Your task to perform on an android device: install app "Spotify: Music and Podcasts" Image 0: 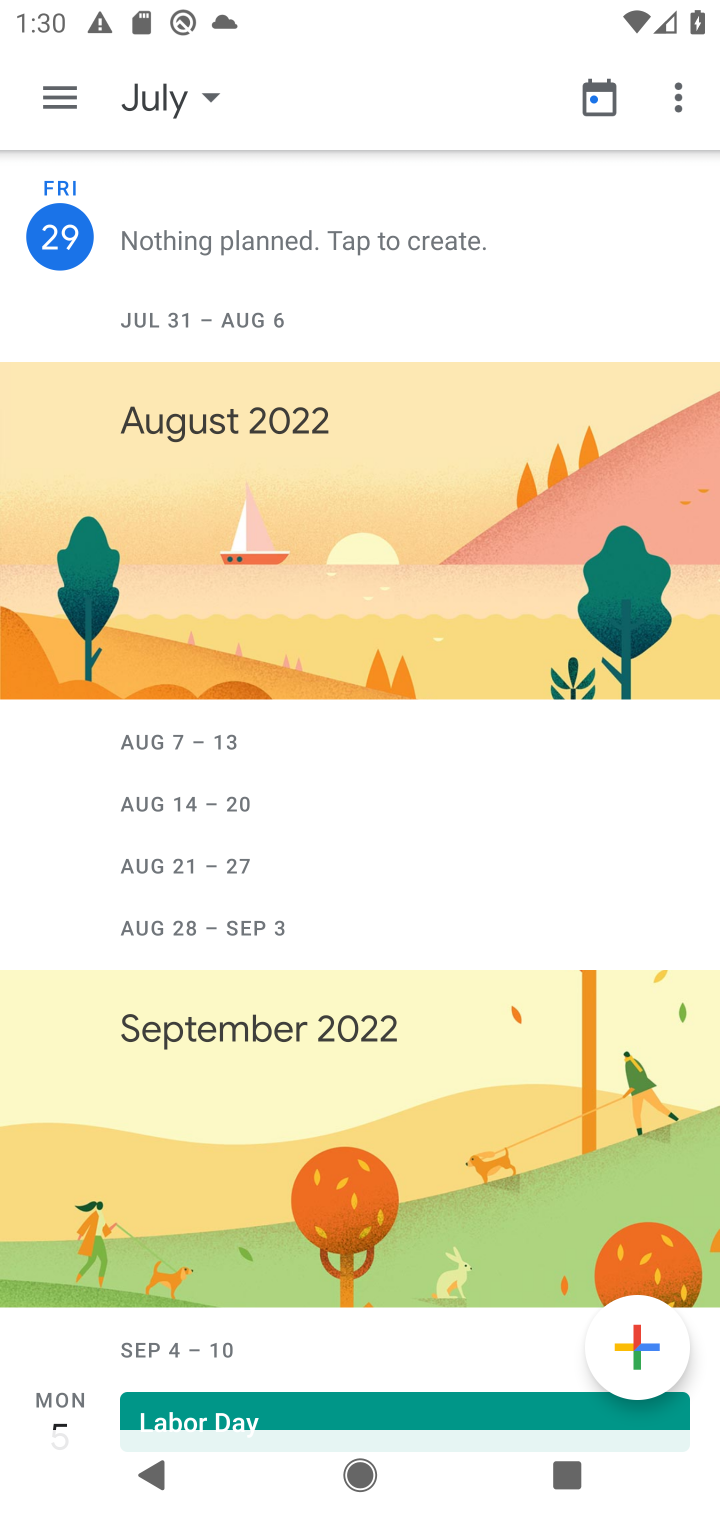
Step 0: press home button
Your task to perform on an android device: install app "Spotify: Music and Podcasts" Image 1: 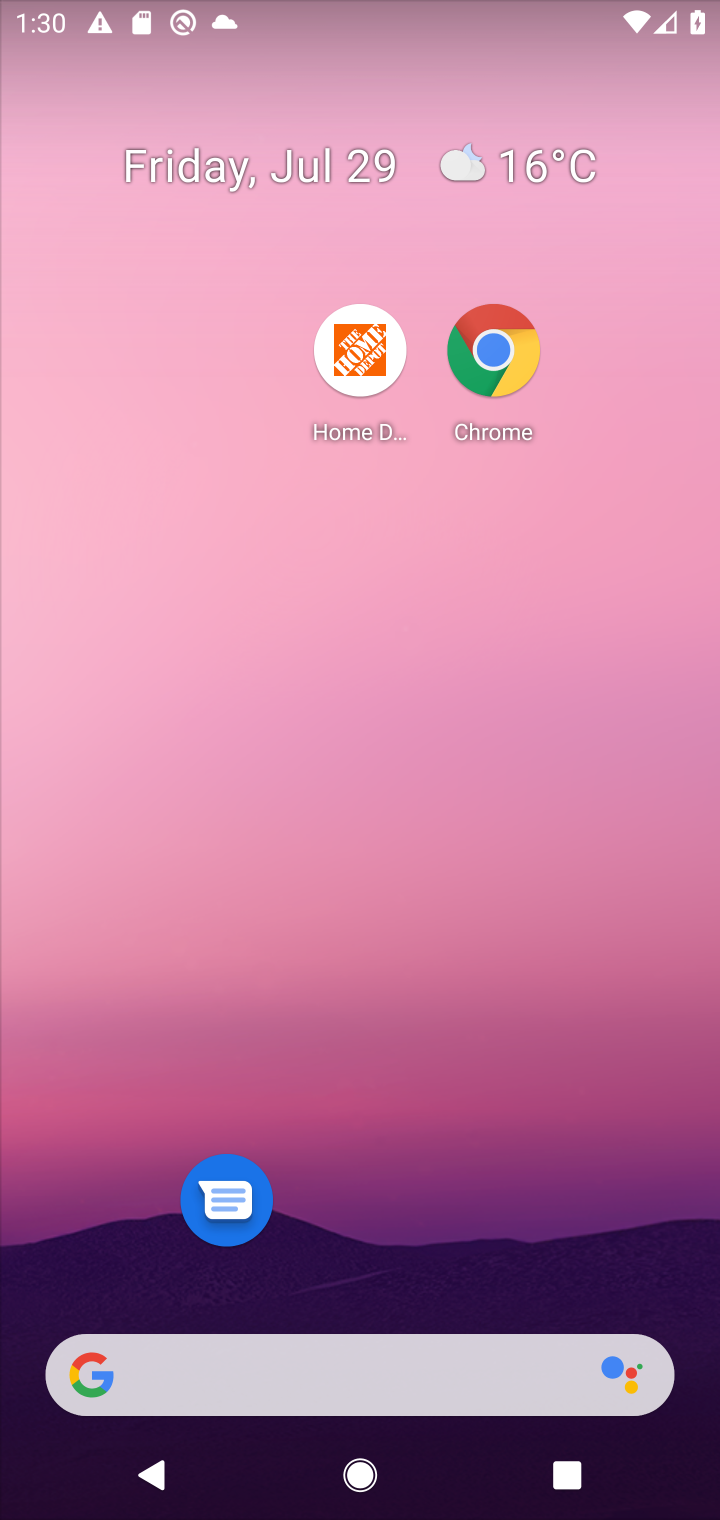
Step 1: drag from (466, 1127) to (554, 109)
Your task to perform on an android device: install app "Spotify: Music and Podcasts" Image 2: 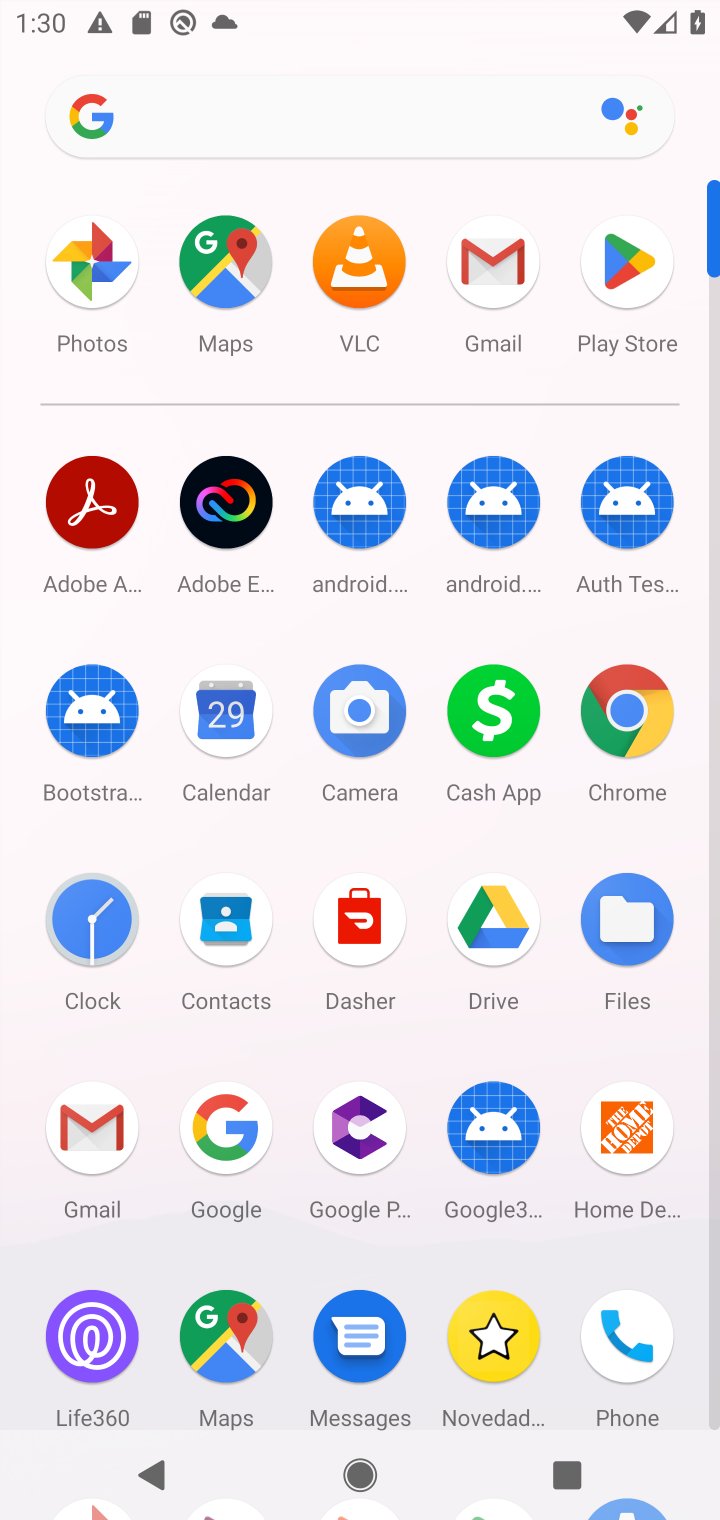
Step 2: click (631, 268)
Your task to perform on an android device: install app "Spotify: Music and Podcasts" Image 3: 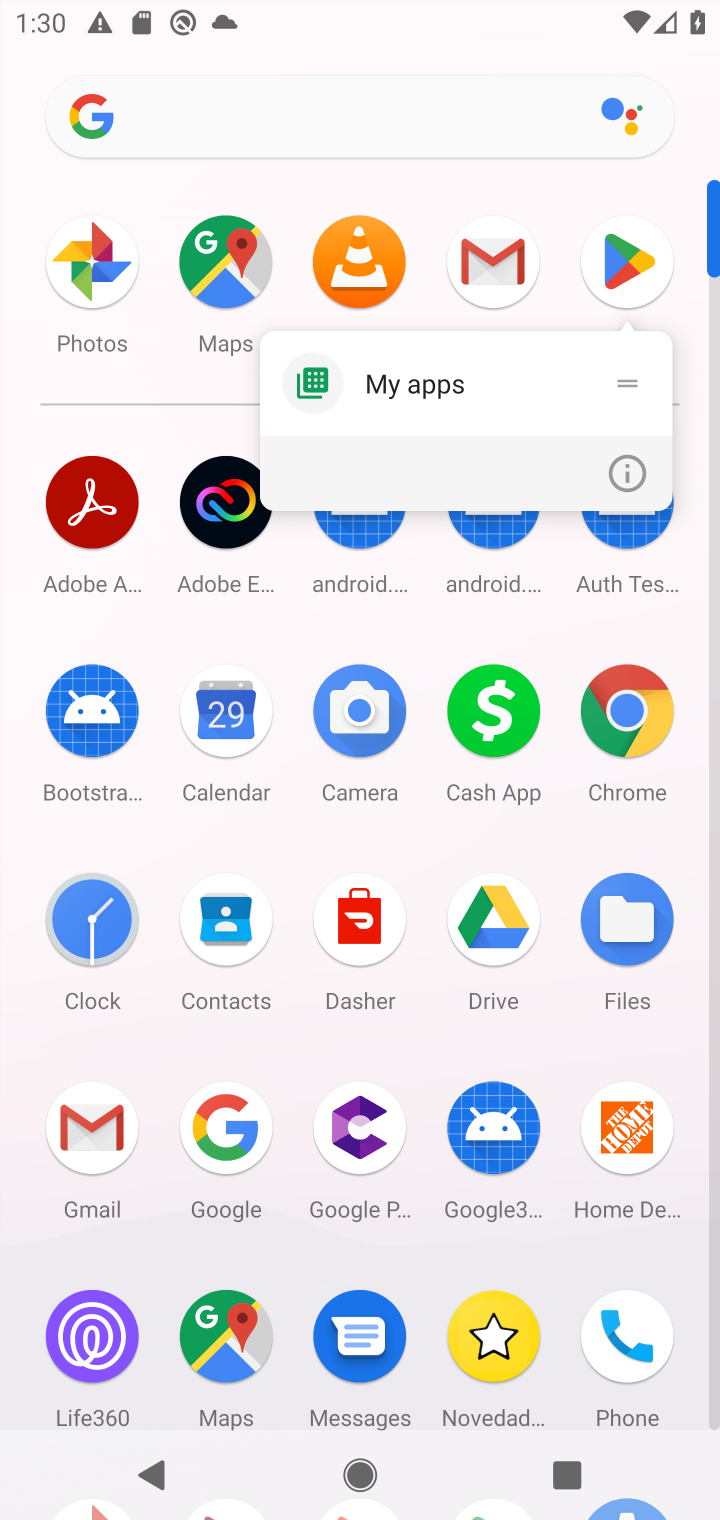
Step 3: click (631, 268)
Your task to perform on an android device: install app "Spotify: Music and Podcasts" Image 4: 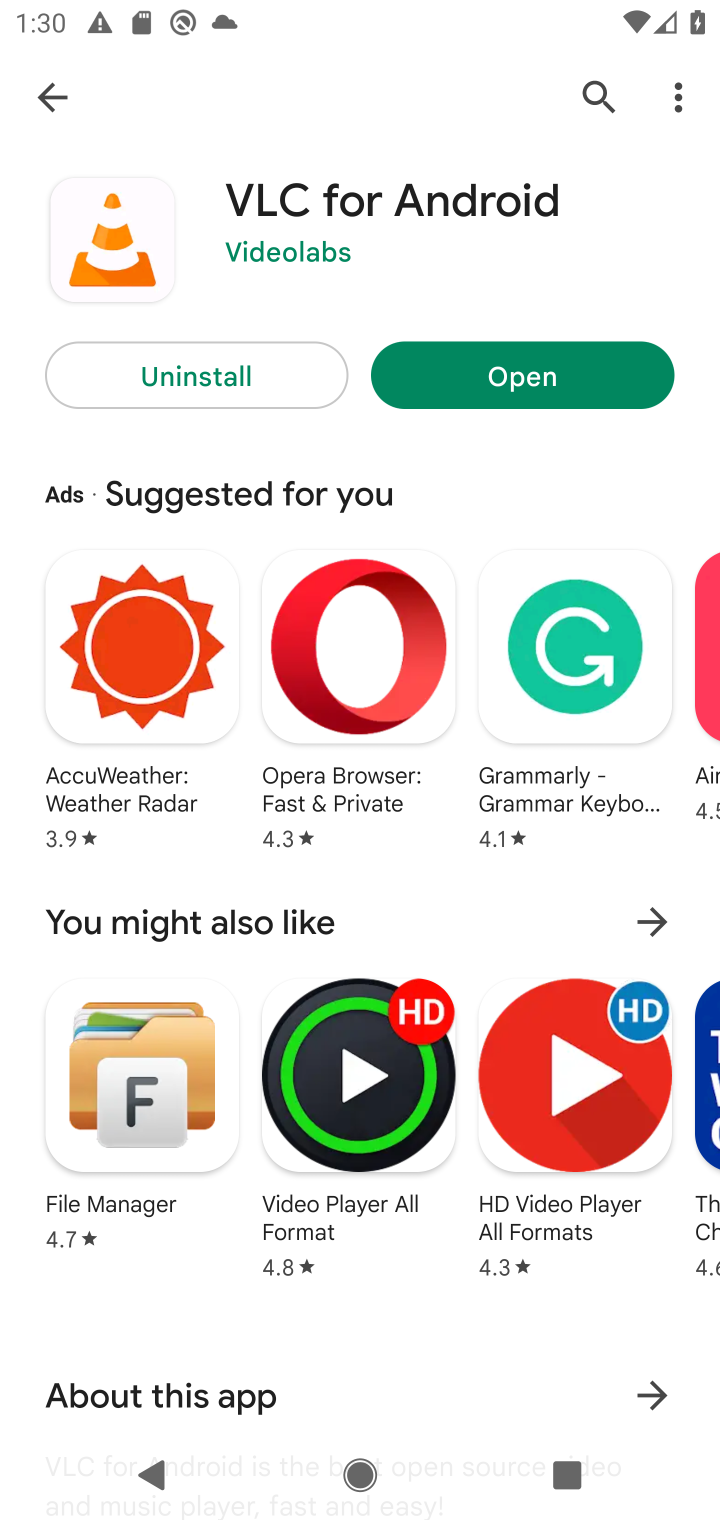
Step 4: click (587, 88)
Your task to perform on an android device: install app "Spotify: Music and Podcasts" Image 5: 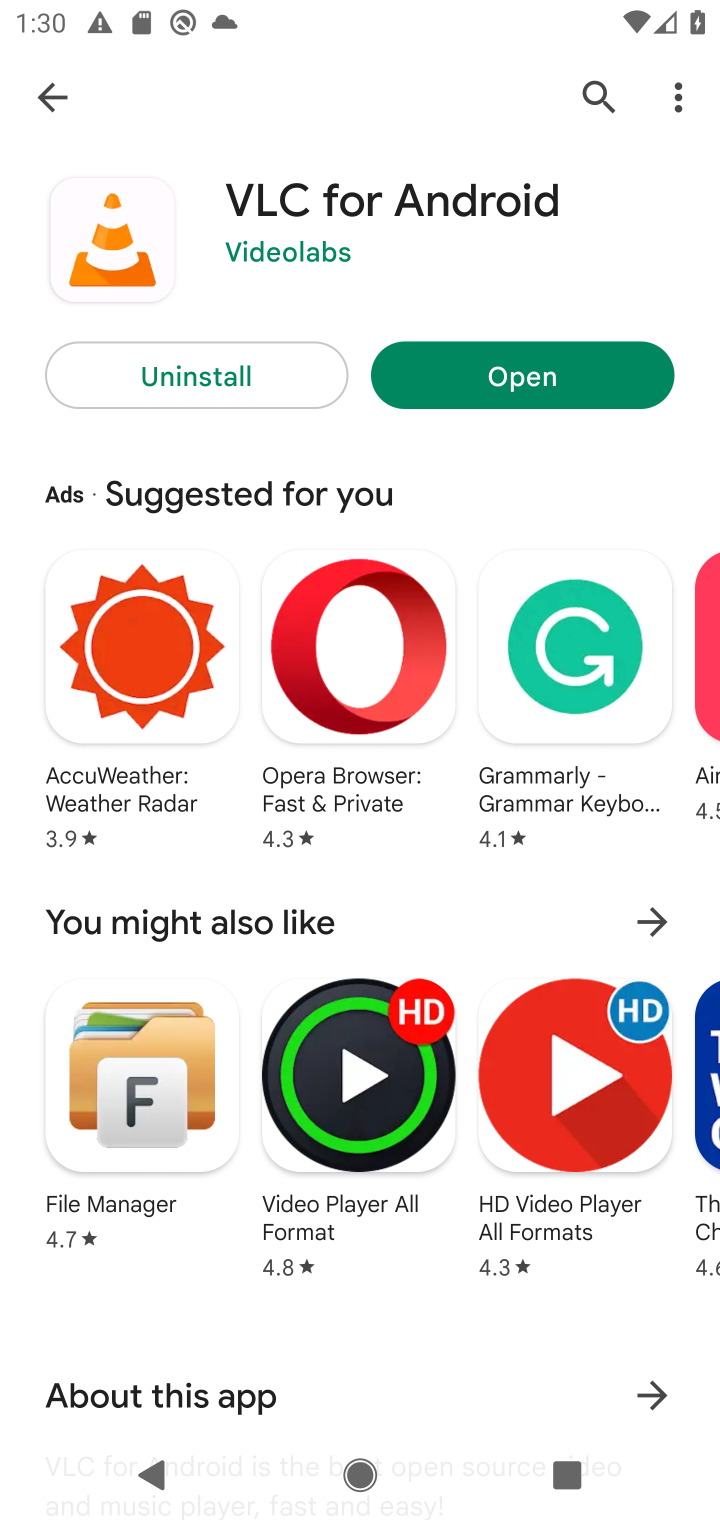
Step 5: press back button
Your task to perform on an android device: install app "Spotify: Music and Podcasts" Image 6: 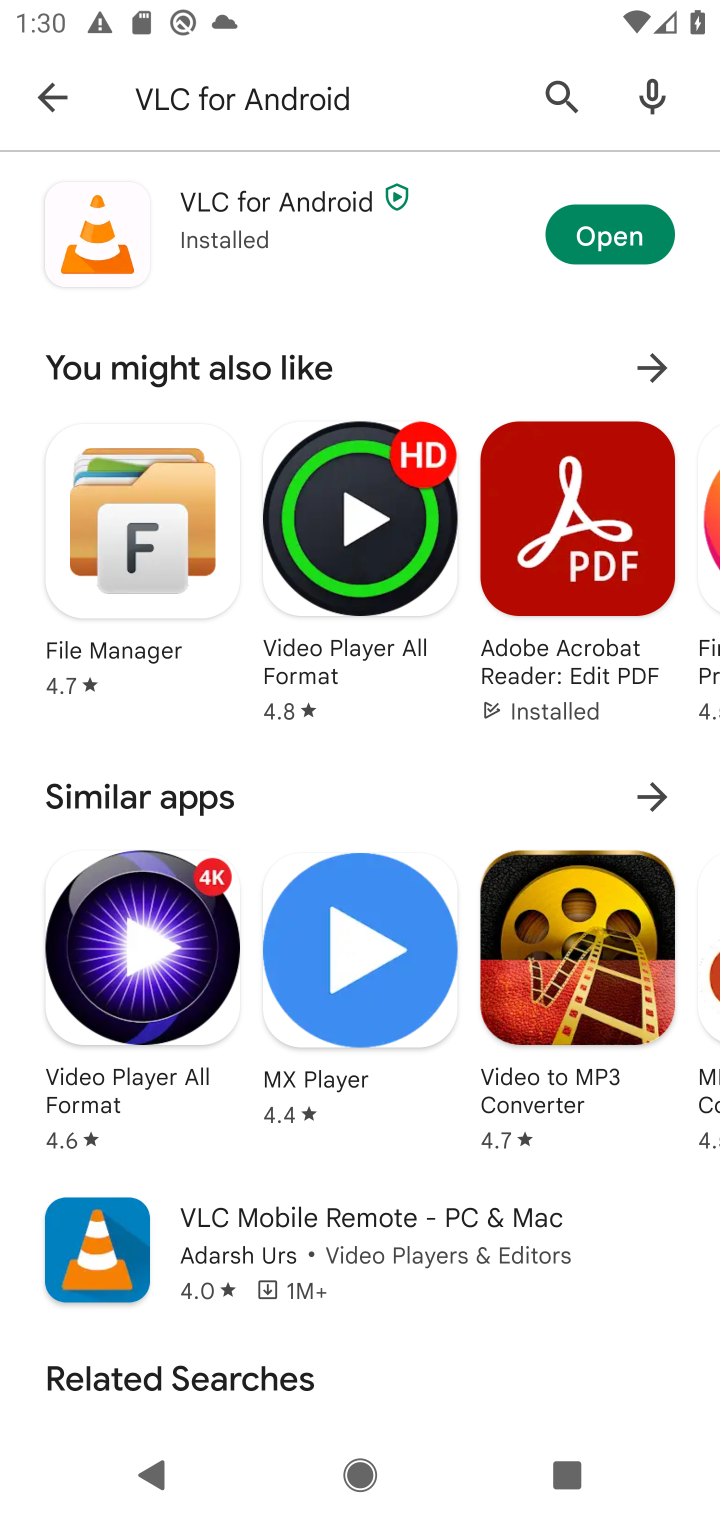
Step 6: click (406, 105)
Your task to perform on an android device: install app "Spotify: Music and Podcasts" Image 7: 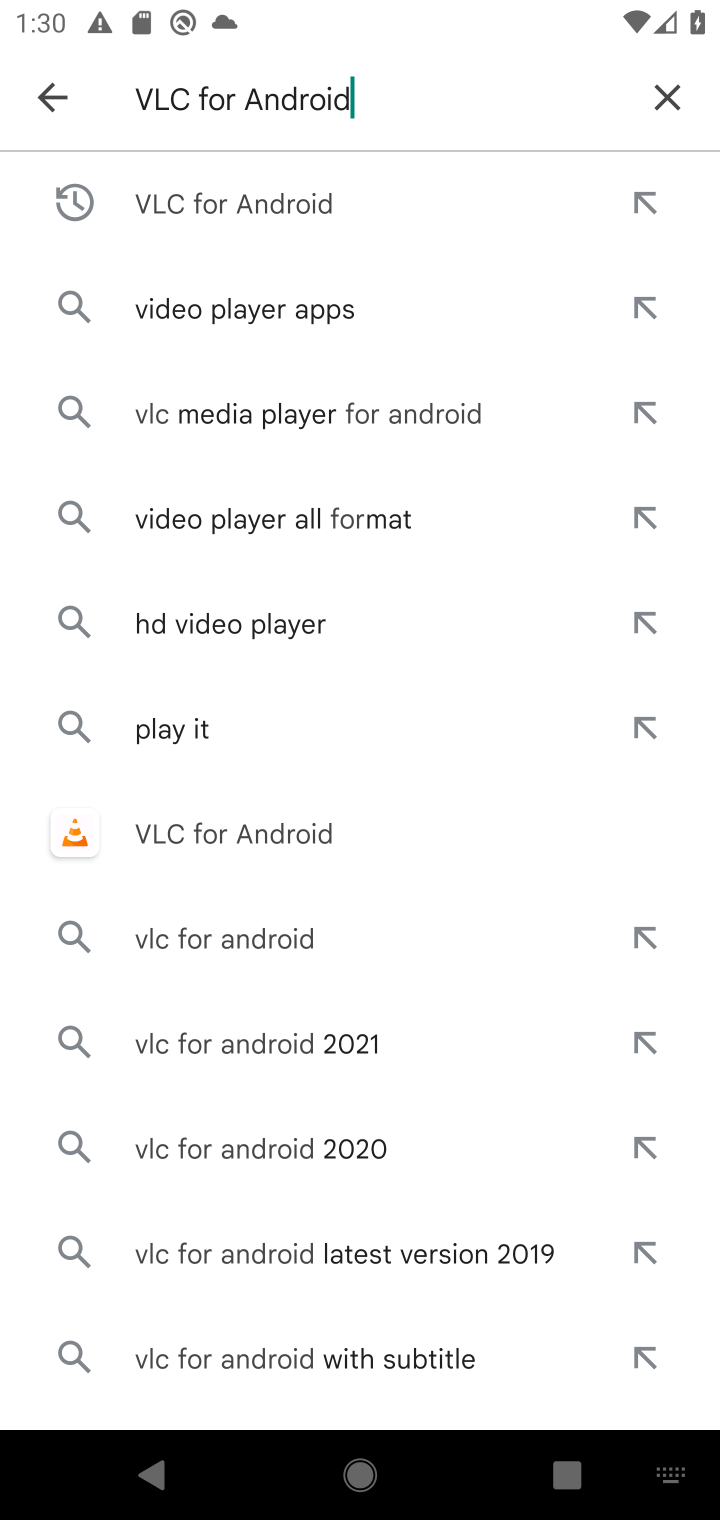
Step 7: click (660, 84)
Your task to perform on an android device: install app "Spotify: Music and Podcasts" Image 8: 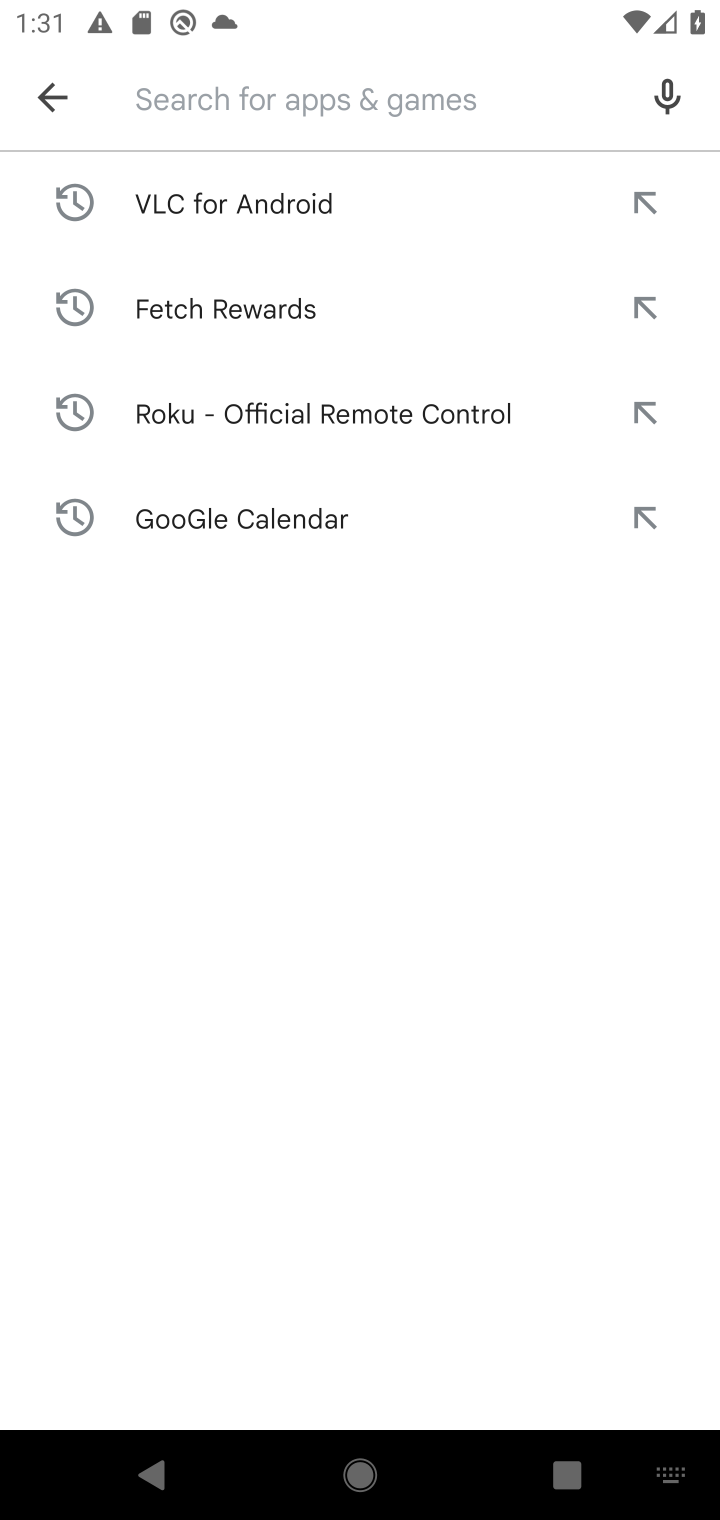
Step 8: type "Spotify: Music and Podcasts"
Your task to perform on an android device: install app "Spotify: Music and Podcasts" Image 9: 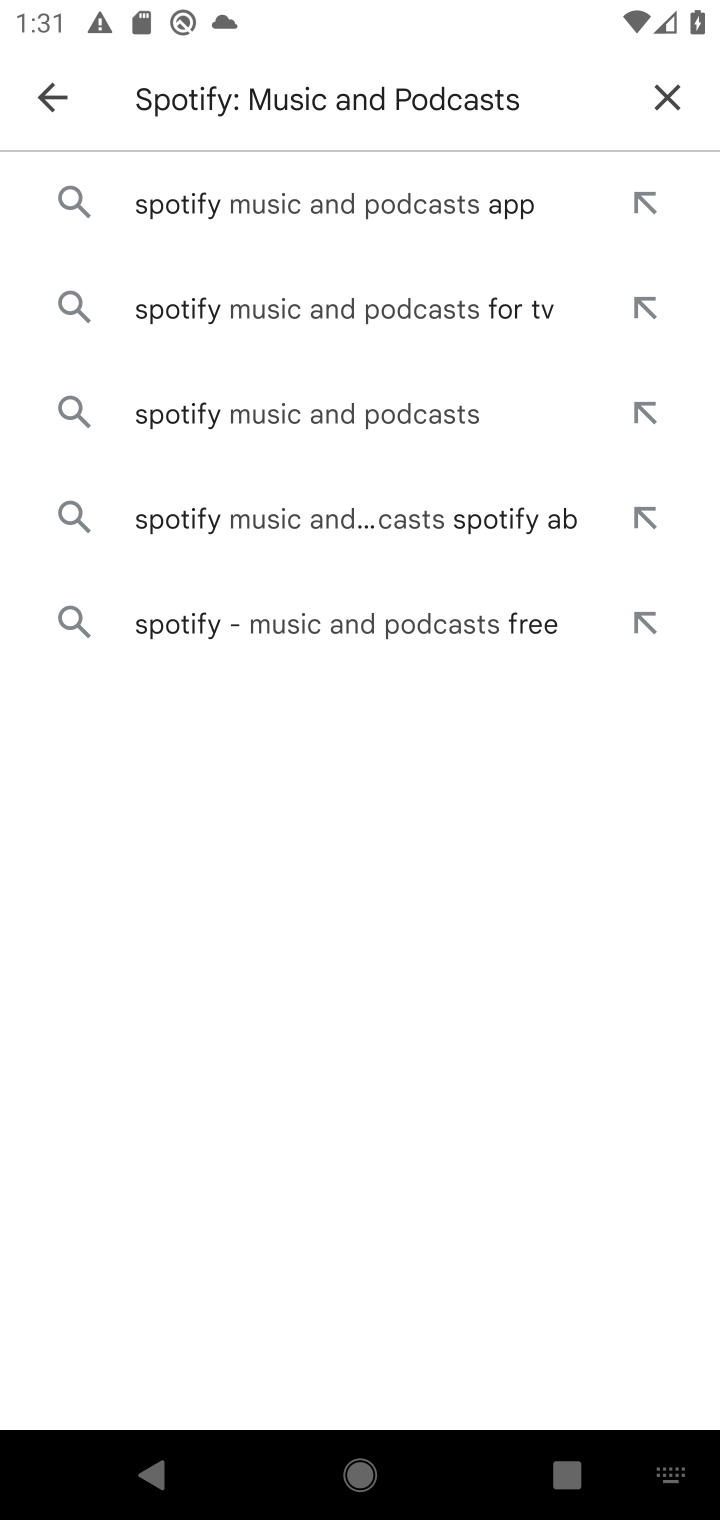
Step 9: press enter
Your task to perform on an android device: install app "Spotify: Music and Podcasts" Image 10: 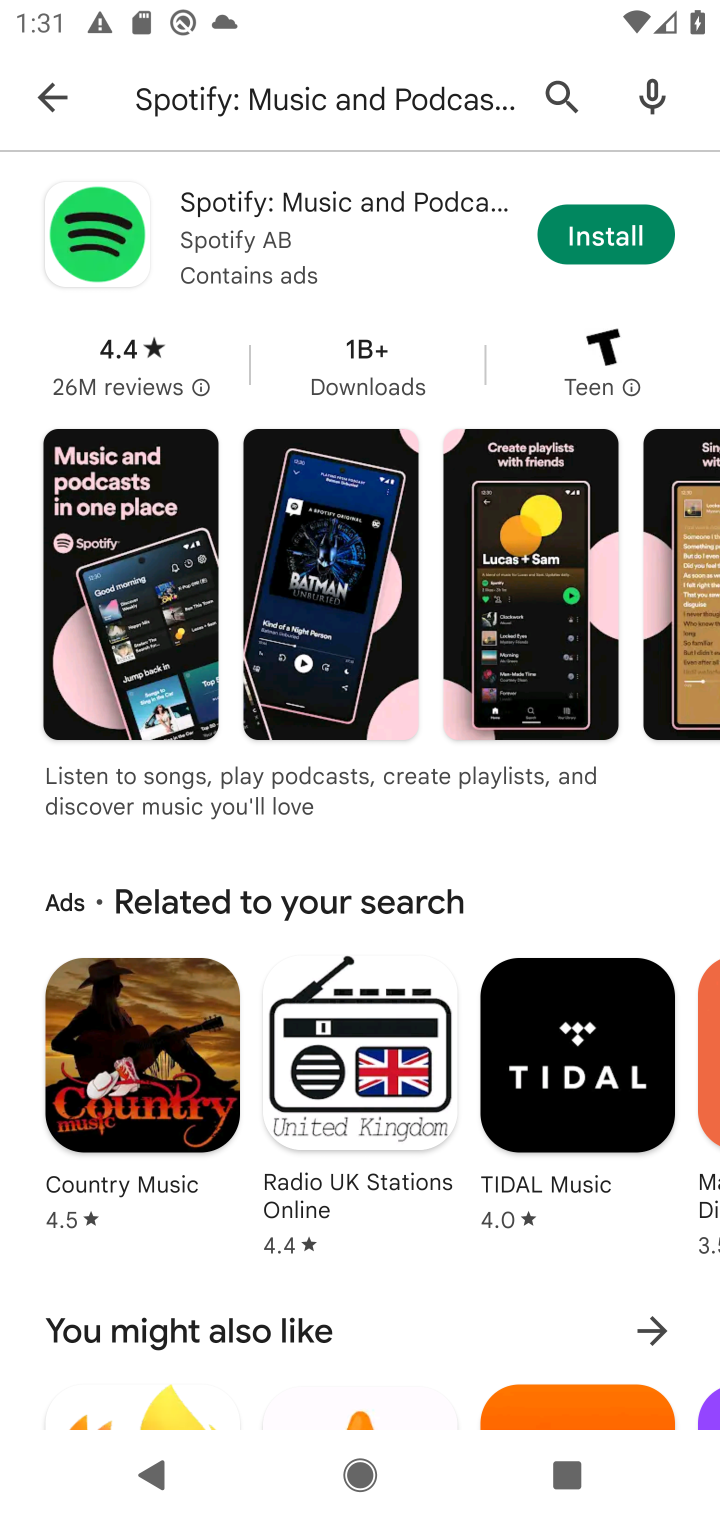
Step 10: click (628, 247)
Your task to perform on an android device: install app "Spotify: Music and Podcasts" Image 11: 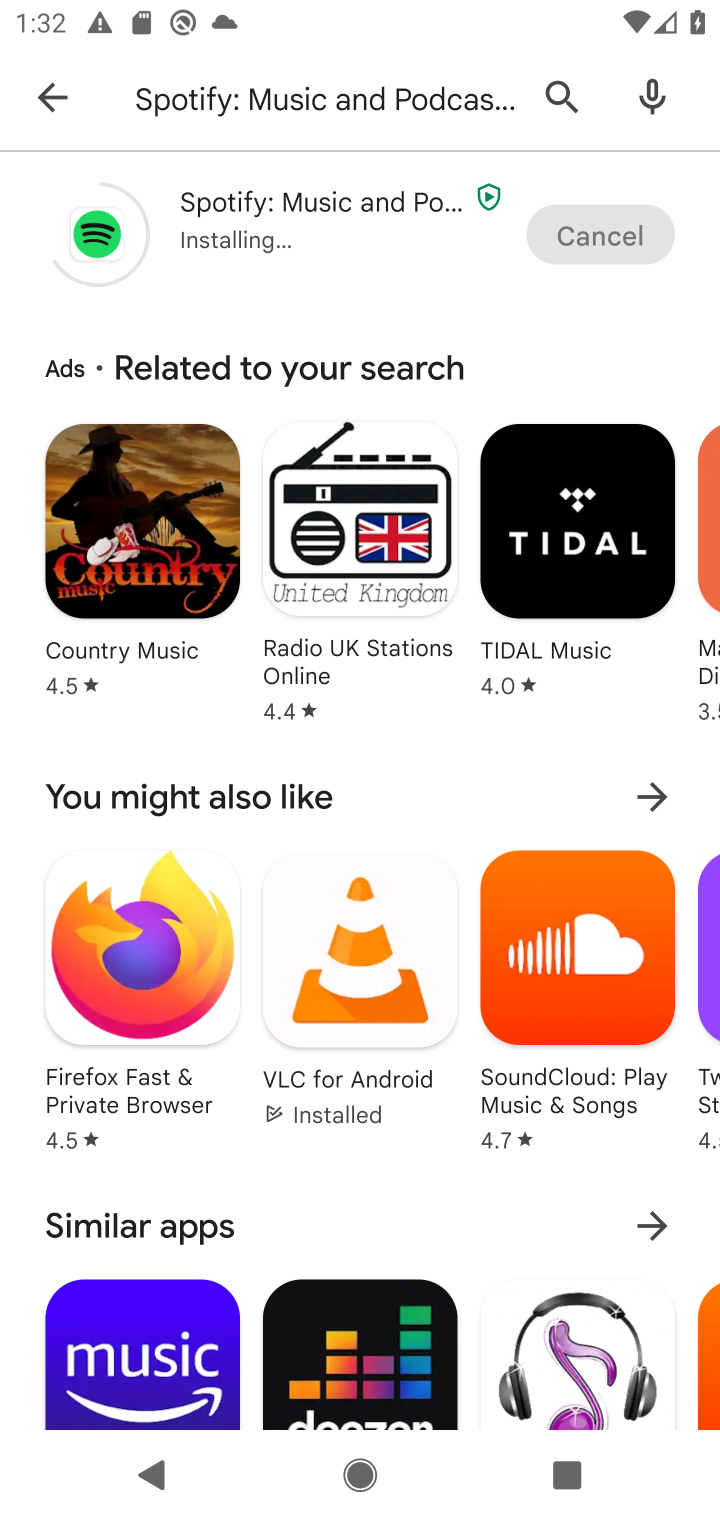
Step 11: task complete